Your task to perform on an android device: Open the map Image 0: 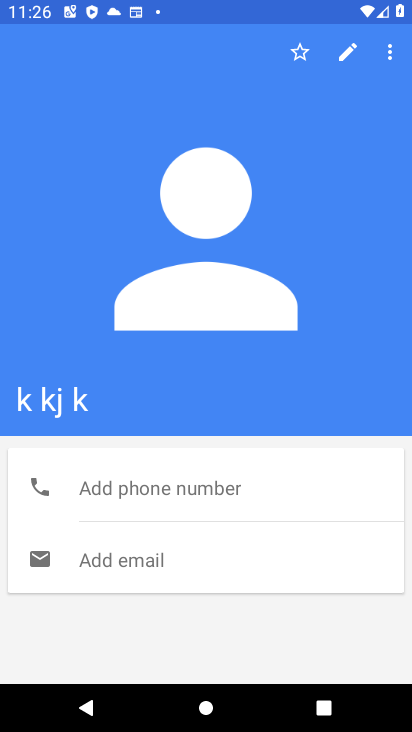
Step 0: press home button
Your task to perform on an android device: Open the map Image 1: 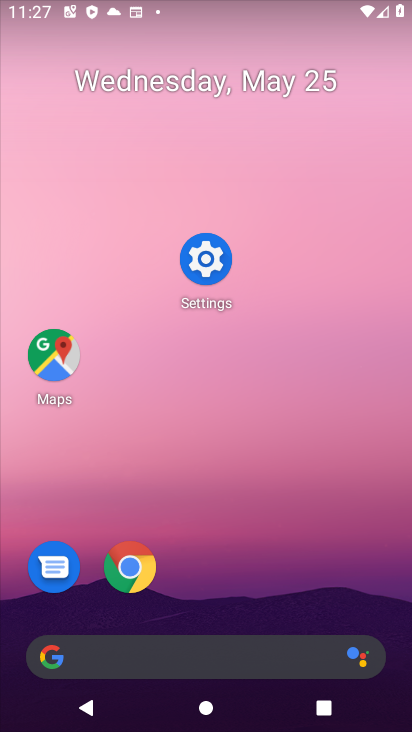
Step 1: click (66, 398)
Your task to perform on an android device: Open the map Image 2: 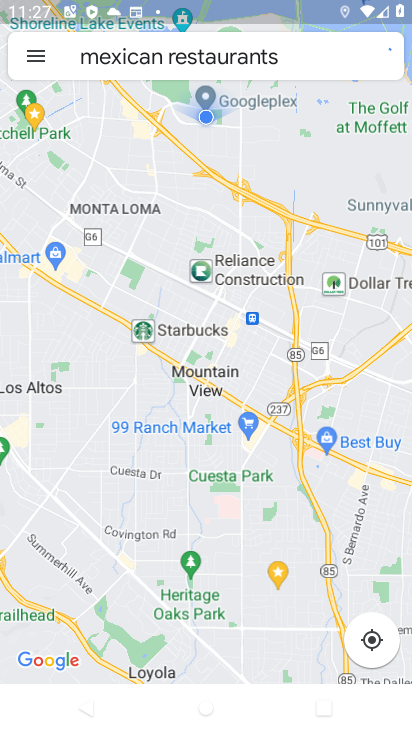
Step 2: task complete